Your task to perform on an android device: Open notification settings Image 0: 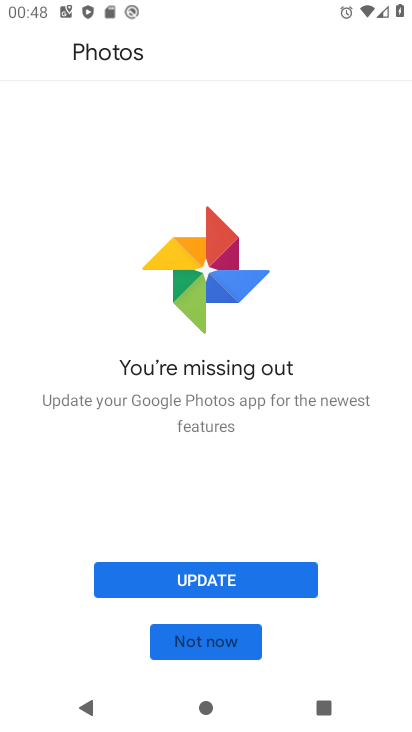
Step 0: press home button
Your task to perform on an android device: Open notification settings Image 1: 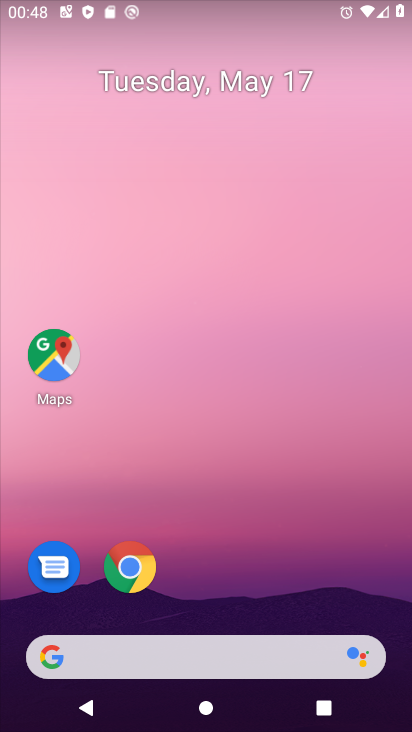
Step 1: drag from (272, 531) to (149, 101)
Your task to perform on an android device: Open notification settings Image 2: 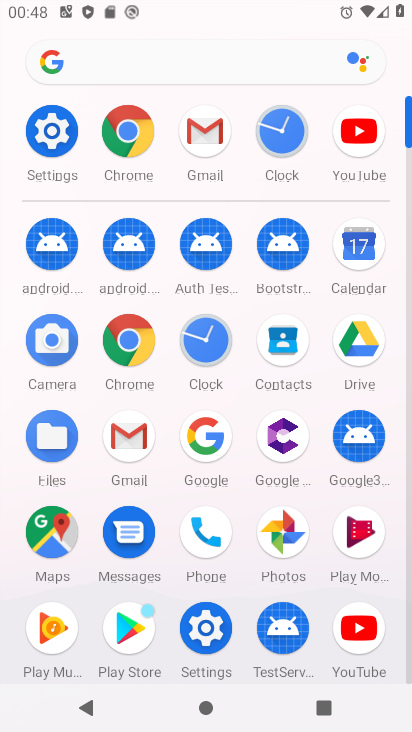
Step 2: click (54, 133)
Your task to perform on an android device: Open notification settings Image 3: 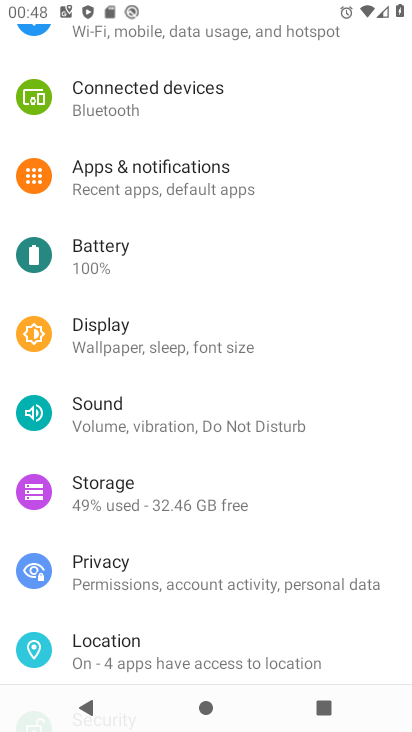
Step 3: click (161, 168)
Your task to perform on an android device: Open notification settings Image 4: 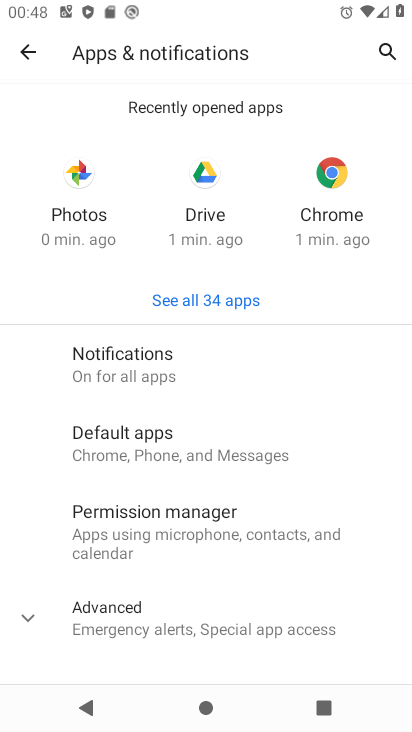
Step 4: task complete